Your task to perform on an android device: turn off improve location accuracy Image 0: 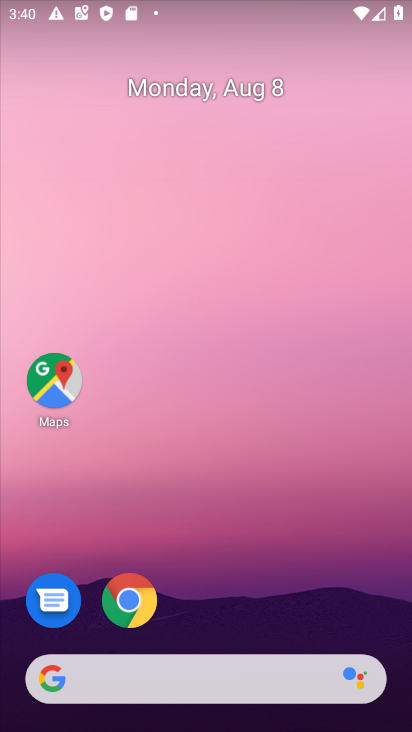
Step 0: drag from (397, 682) to (319, 57)
Your task to perform on an android device: turn off improve location accuracy Image 1: 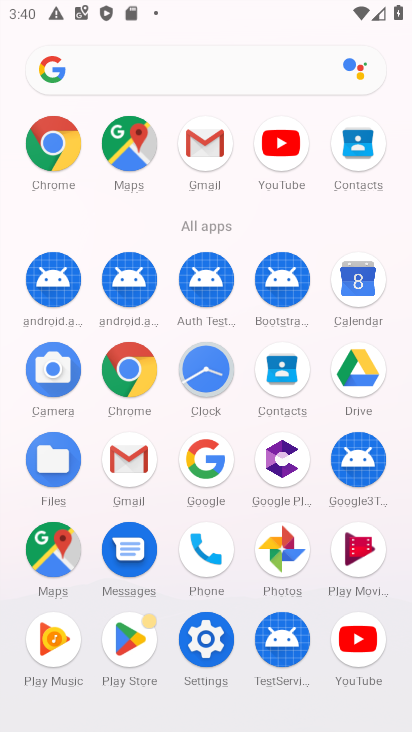
Step 1: click (198, 630)
Your task to perform on an android device: turn off improve location accuracy Image 2: 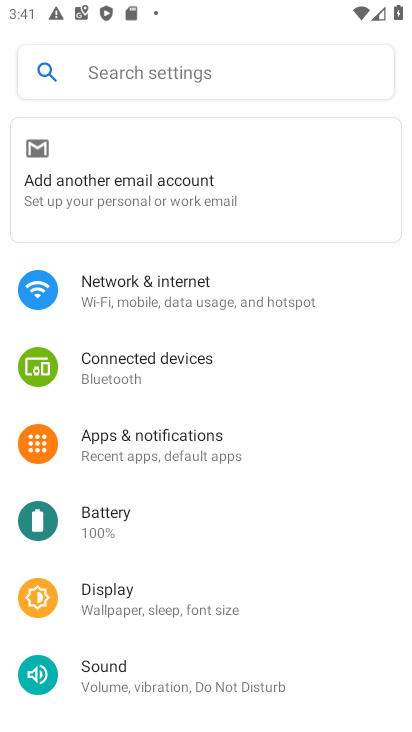
Step 2: drag from (291, 635) to (315, 199)
Your task to perform on an android device: turn off improve location accuracy Image 3: 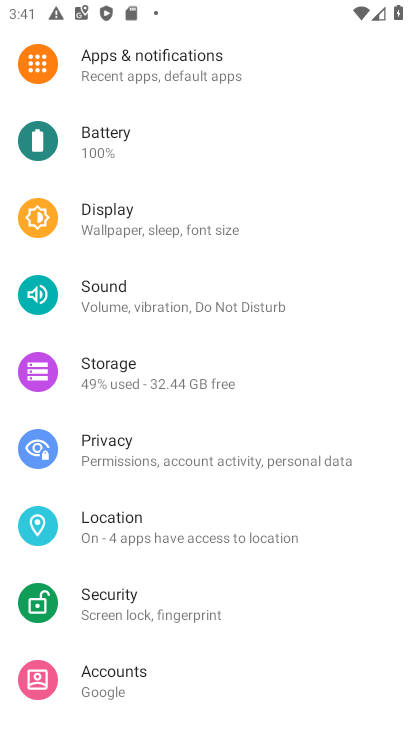
Step 3: click (113, 516)
Your task to perform on an android device: turn off improve location accuracy Image 4: 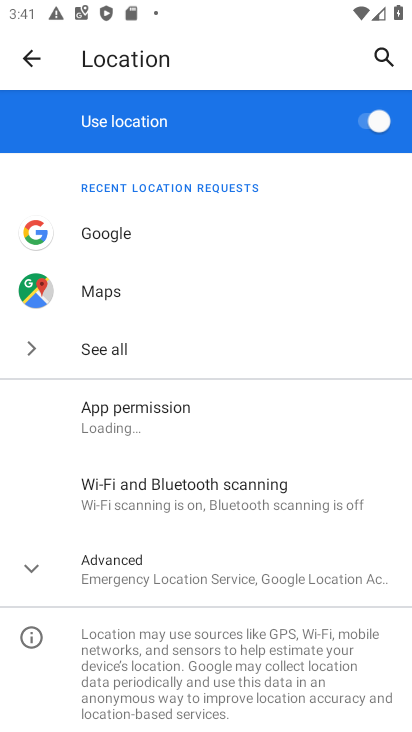
Step 4: drag from (309, 641) to (299, 271)
Your task to perform on an android device: turn off improve location accuracy Image 5: 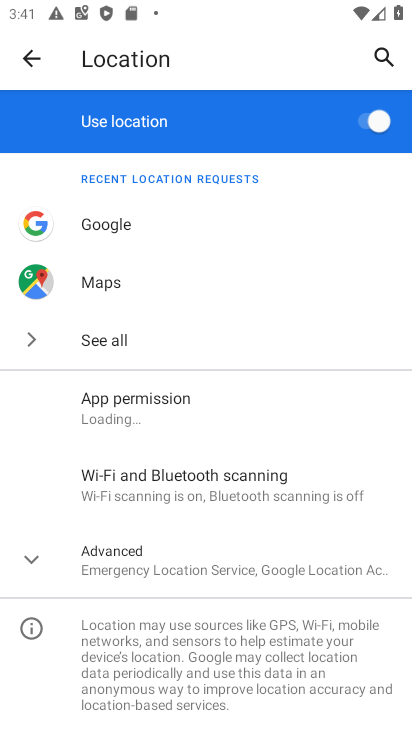
Step 5: click (27, 551)
Your task to perform on an android device: turn off improve location accuracy Image 6: 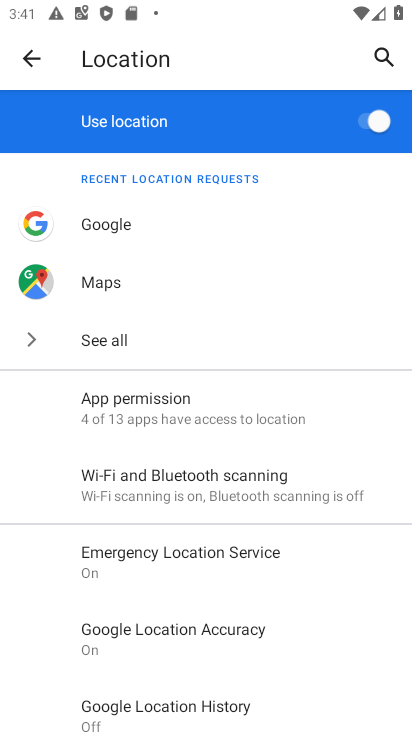
Step 6: click (123, 633)
Your task to perform on an android device: turn off improve location accuracy Image 7: 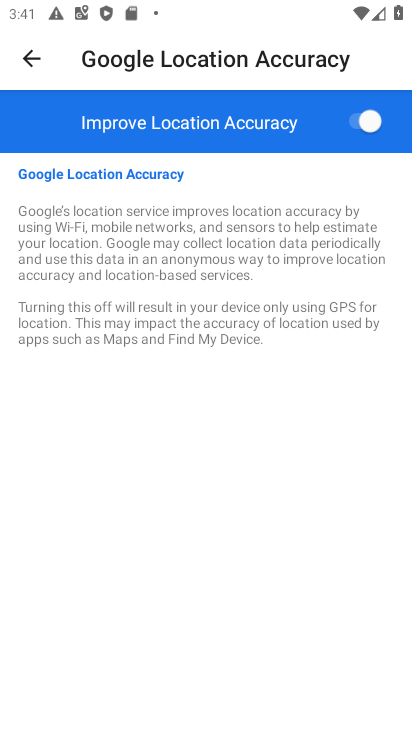
Step 7: click (368, 118)
Your task to perform on an android device: turn off improve location accuracy Image 8: 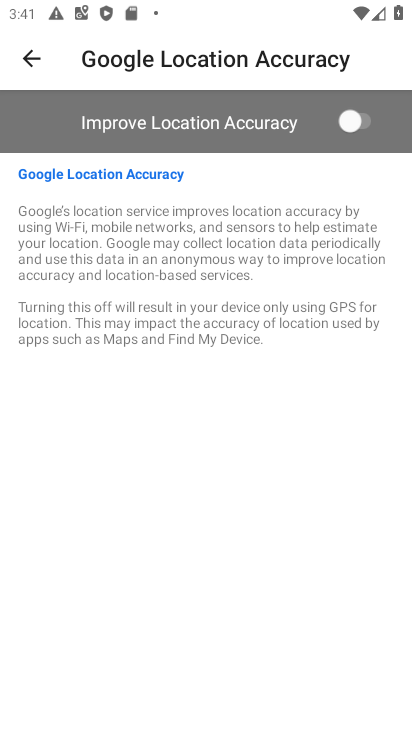
Step 8: task complete